Your task to perform on an android device: Show me popular games on the Play Store Image 0: 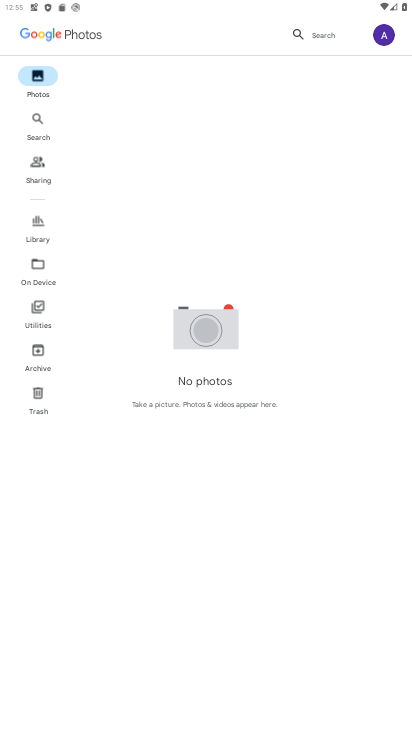
Step 0: press home button
Your task to perform on an android device: Show me popular games on the Play Store Image 1: 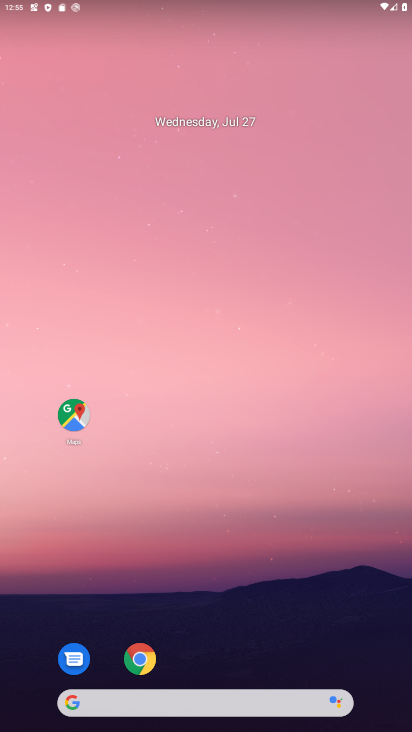
Step 1: drag from (224, 639) to (276, 92)
Your task to perform on an android device: Show me popular games on the Play Store Image 2: 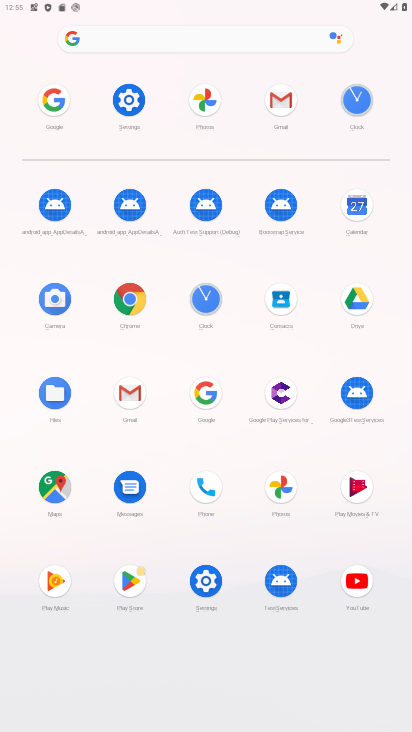
Step 2: click (130, 572)
Your task to perform on an android device: Show me popular games on the Play Store Image 3: 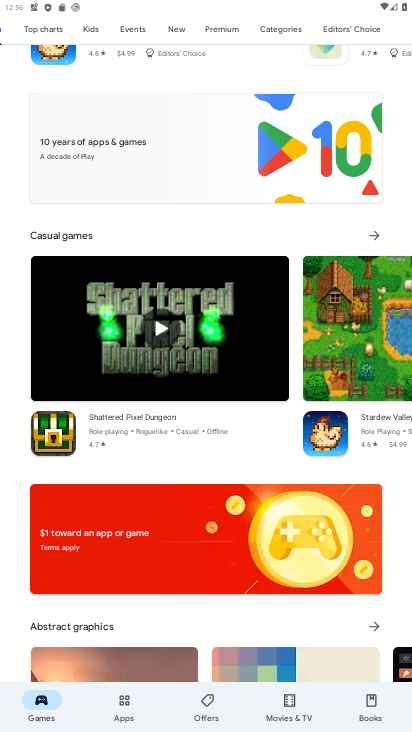
Step 3: drag from (223, 625) to (223, 294)
Your task to perform on an android device: Show me popular games on the Play Store Image 4: 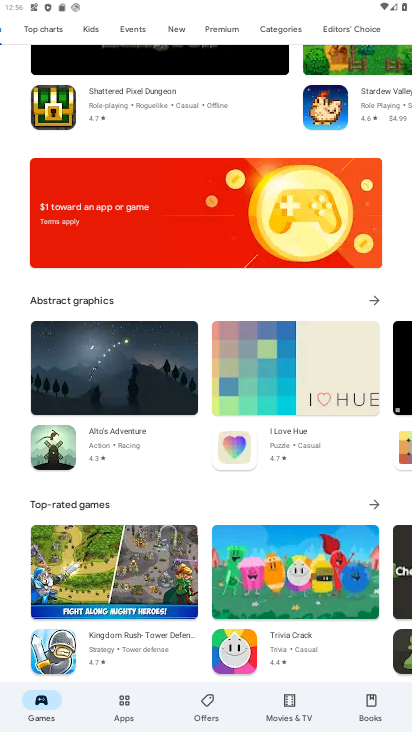
Step 4: drag from (180, 501) to (188, 211)
Your task to perform on an android device: Show me popular games on the Play Store Image 5: 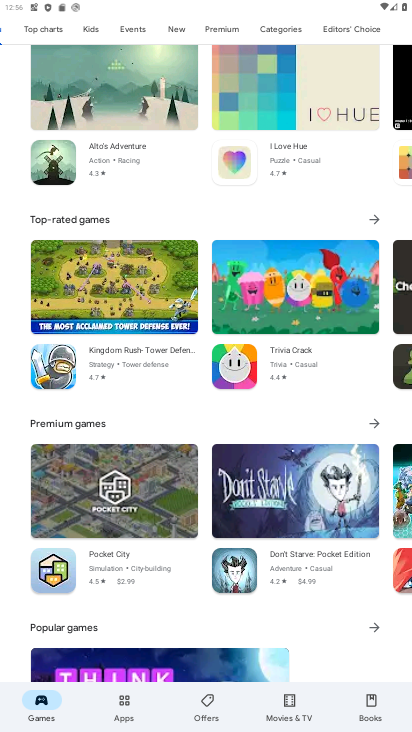
Step 5: click (159, 625)
Your task to perform on an android device: Show me popular games on the Play Store Image 6: 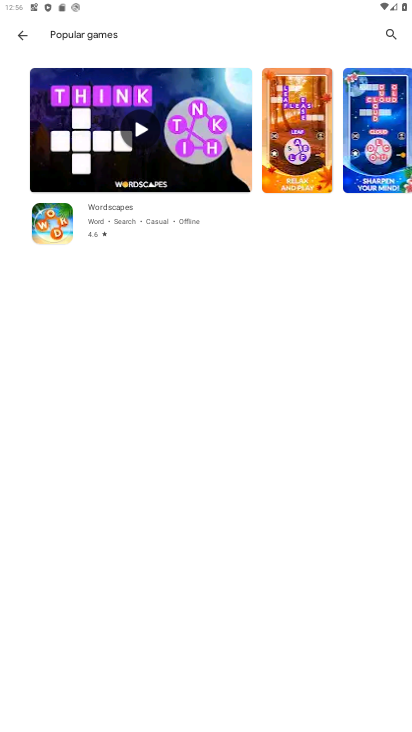
Step 6: task complete